Your task to perform on an android device: Go to Maps Image 0: 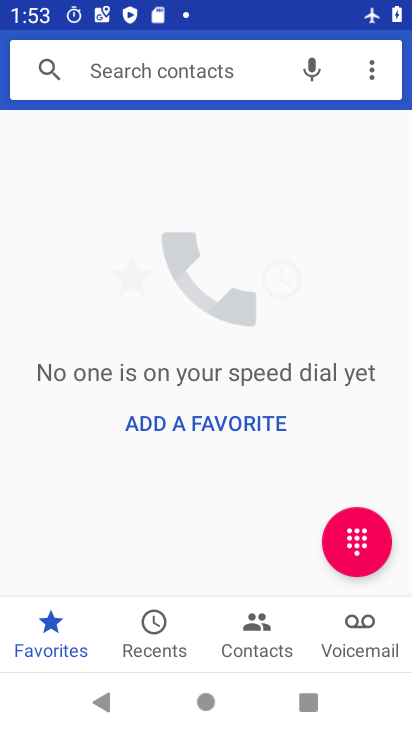
Step 0: press home button
Your task to perform on an android device: Go to Maps Image 1: 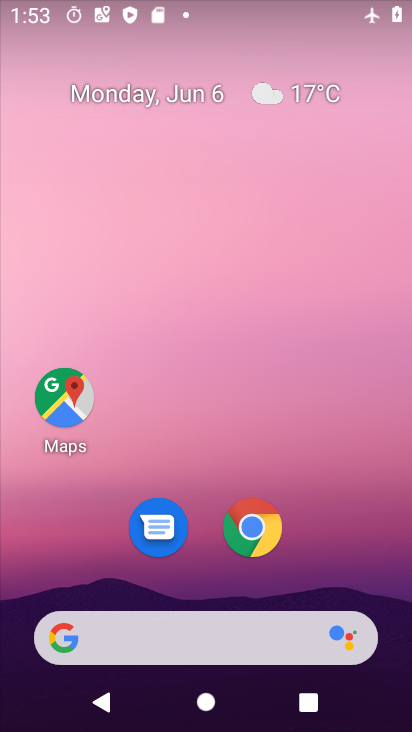
Step 1: drag from (225, 701) to (225, 95)
Your task to perform on an android device: Go to Maps Image 2: 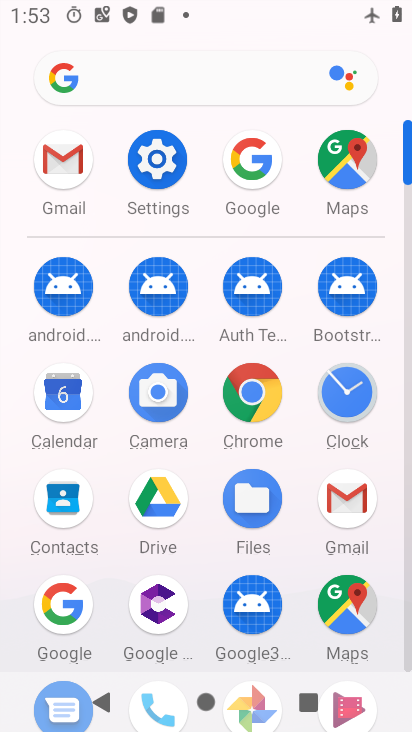
Step 2: click (345, 587)
Your task to perform on an android device: Go to Maps Image 3: 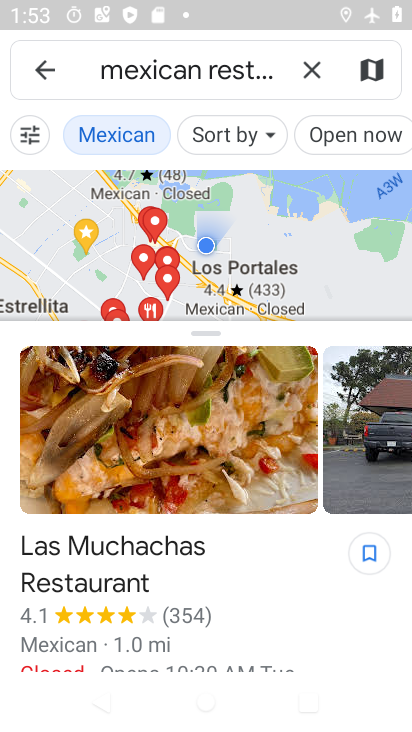
Step 3: task complete